Your task to perform on an android device: toggle priority inbox in the gmail app Image 0: 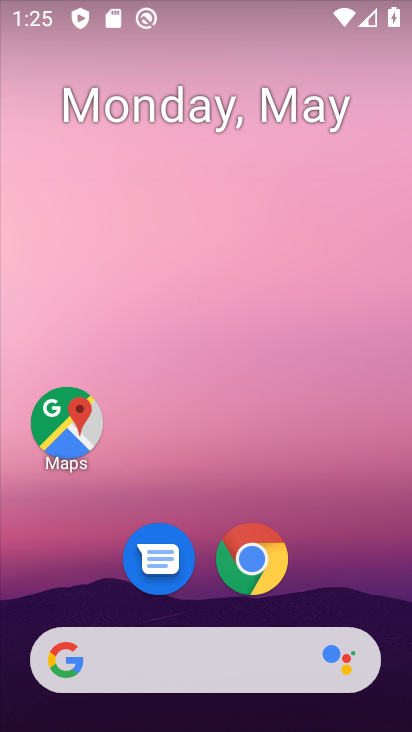
Step 0: drag from (351, 491) to (300, 117)
Your task to perform on an android device: toggle priority inbox in the gmail app Image 1: 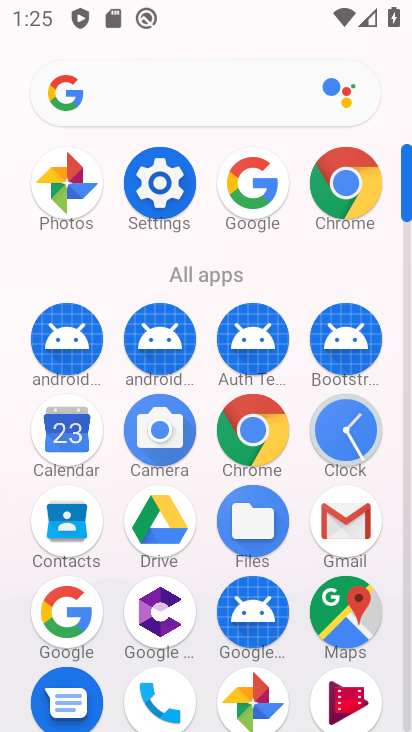
Step 1: click (345, 511)
Your task to perform on an android device: toggle priority inbox in the gmail app Image 2: 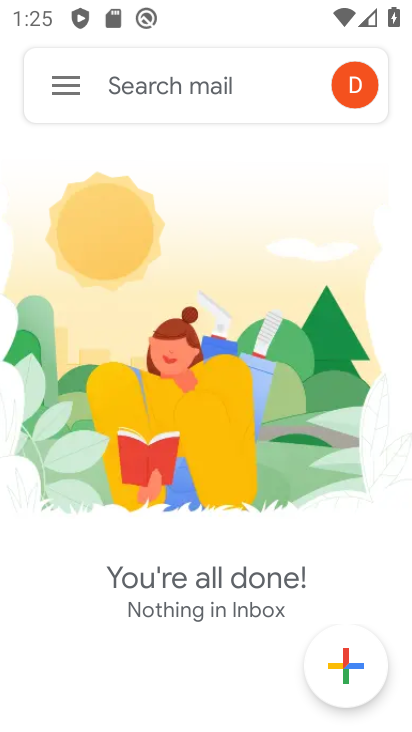
Step 2: click (71, 93)
Your task to perform on an android device: toggle priority inbox in the gmail app Image 3: 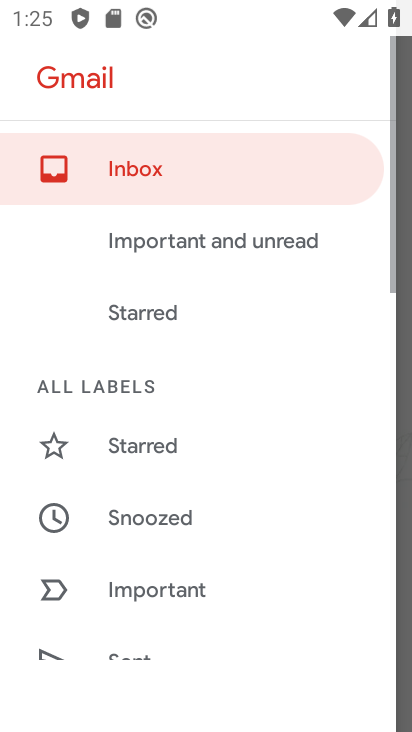
Step 3: drag from (175, 647) to (175, 166)
Your task to perform on an android device: toggle priority inbox in the gmail app Image 4: 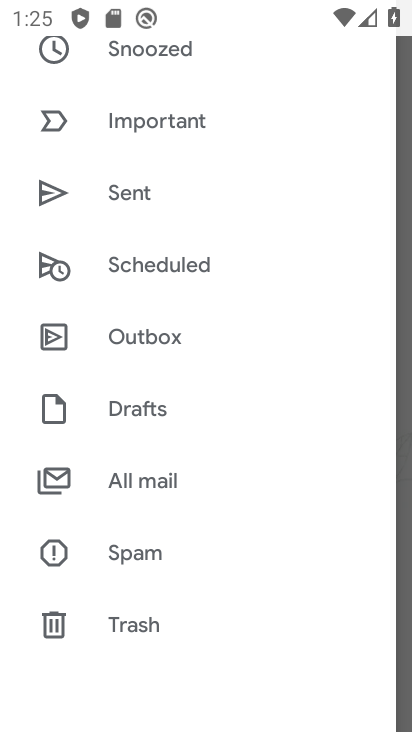
Step 4: drag from (153, 623) to (215, 148)
Your task to perform on an android device: toggle priority inbox in the gmail app Image 5: 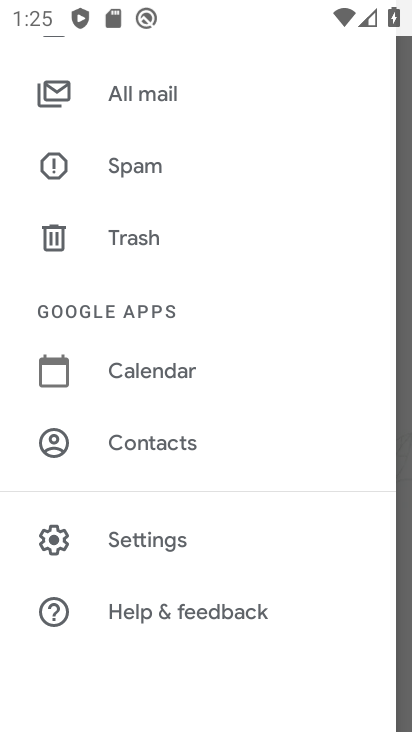
Step 5: click (153, 539)
Your task to perform on an android device: toggle priority inbox in the gmail app Image 6: 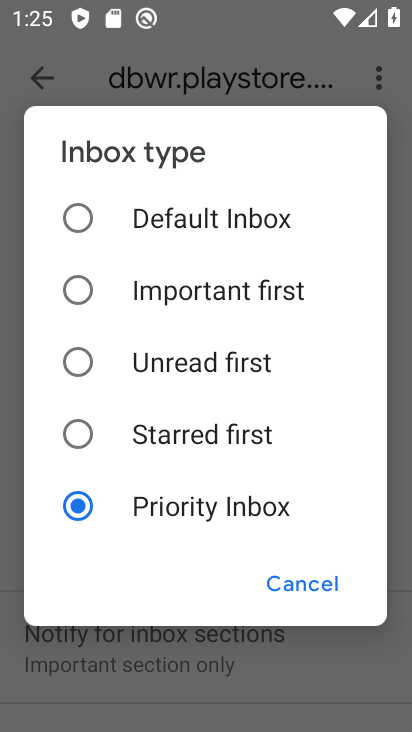
Step 6: click (198, 223)
Your task to perform on an android device: toggle priority inbox in the gmail app Image 7: 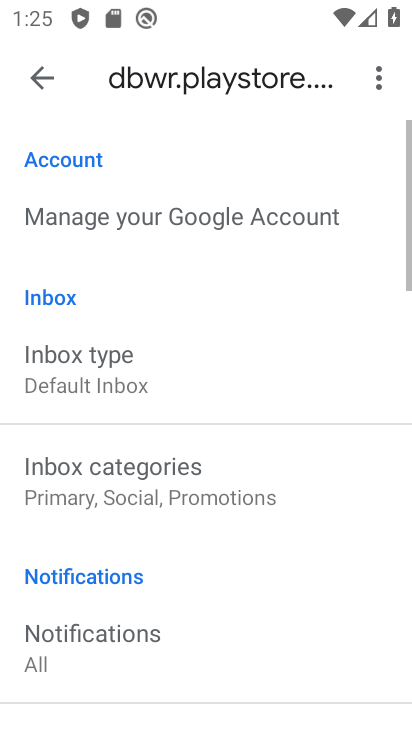
Step 7: task complete